Your task to perform on an android device: install app "The Home Depot" Image 0: 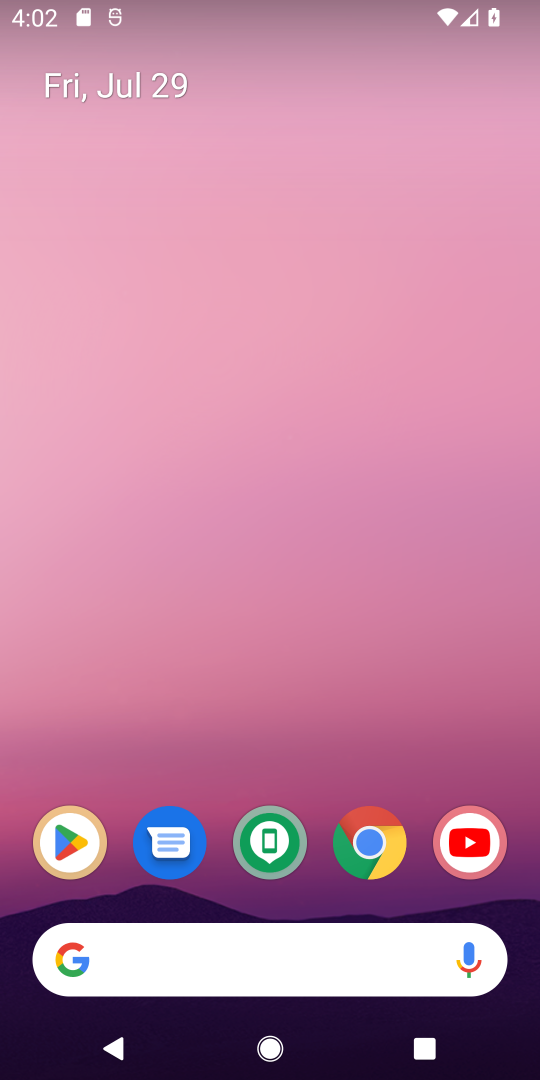
Step 0: drag from (314, 606) to (339, 0)
Your task to perform on an android device: install app "The Home Depot" Image 1: 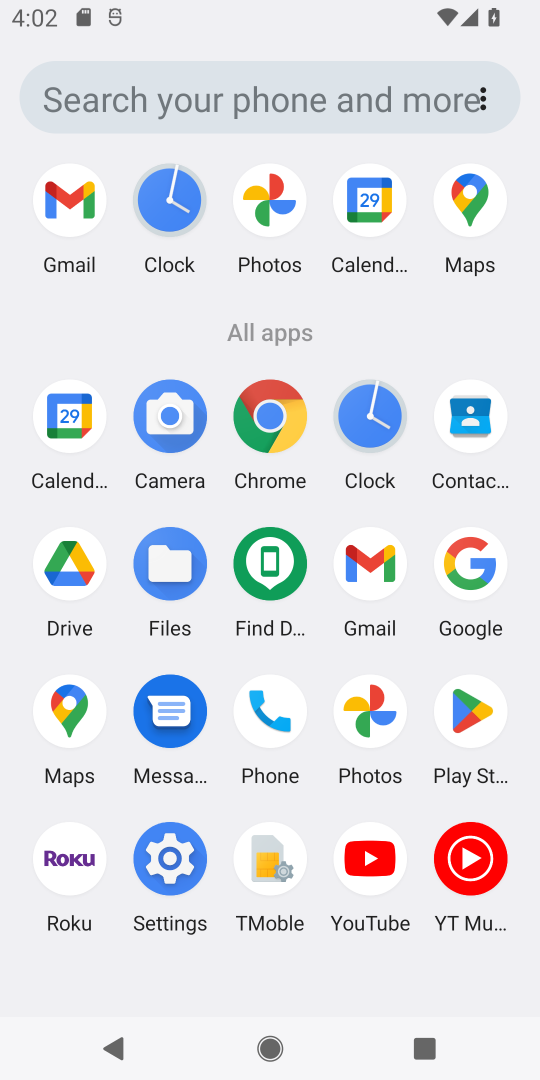
Step 1: click (464, 715)
Your task to perform on an android device: install app "The Home Depot" Image 2: 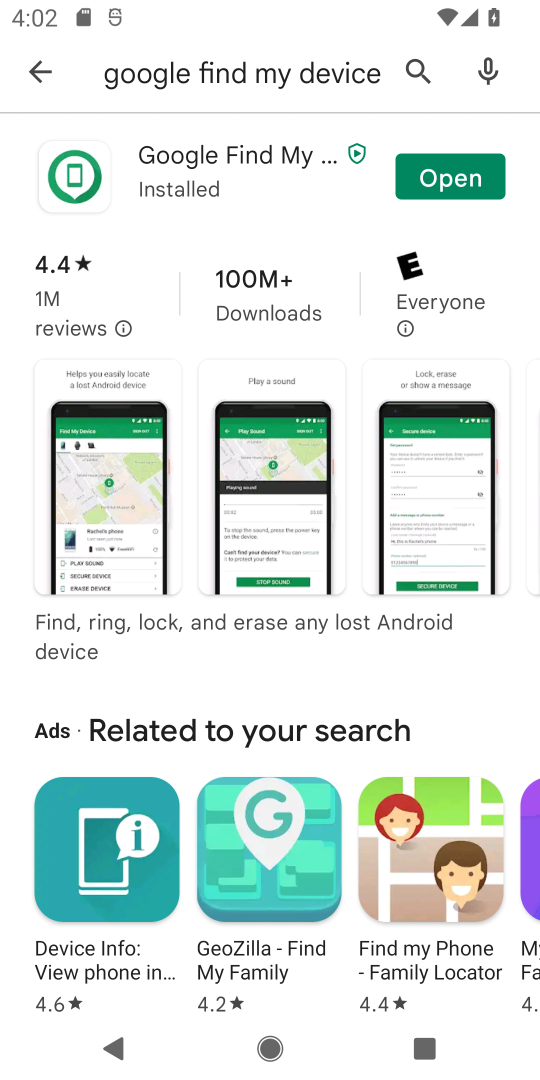
Step 2: click (412, 57)
Your task to perform on an android device: install app "The Home Depot" Image 3: 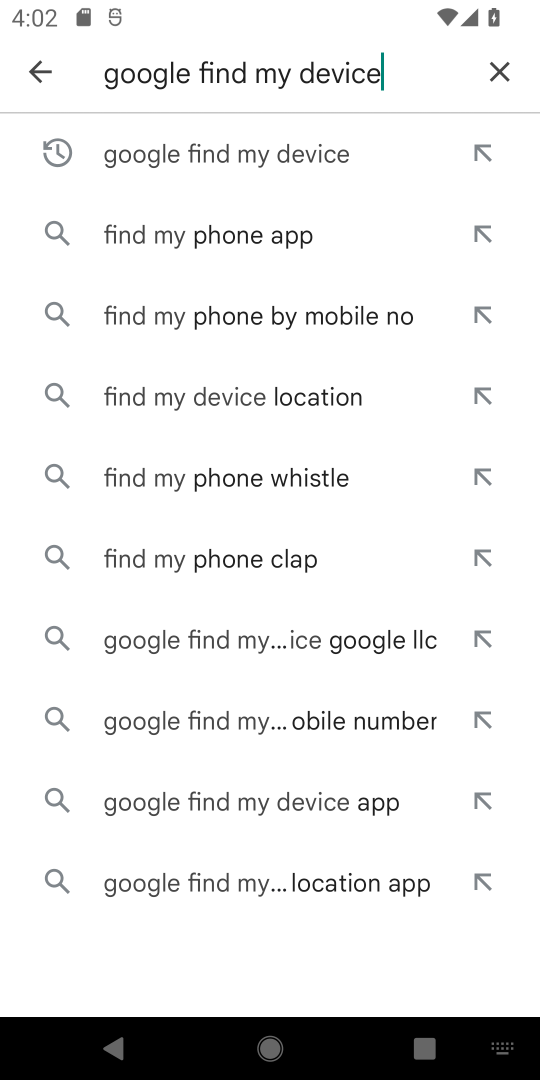
Step 3: click (496, 75)
Your task to perform on an android device: install app "The Home Depot" Image 4: 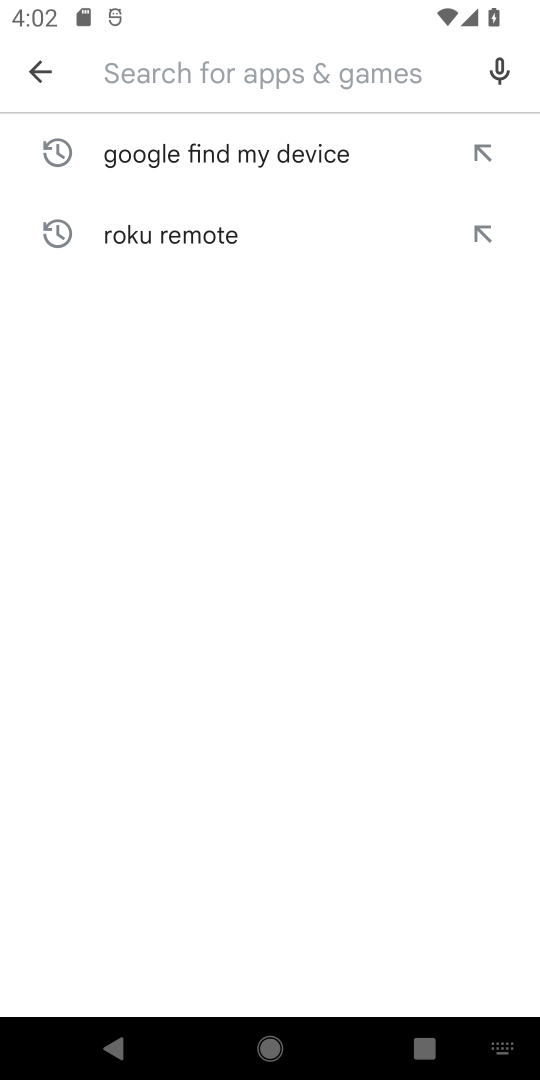
Step 4: type "the home depot"
Your task to perform on an android device: install app "The Home Depot" Image 5: 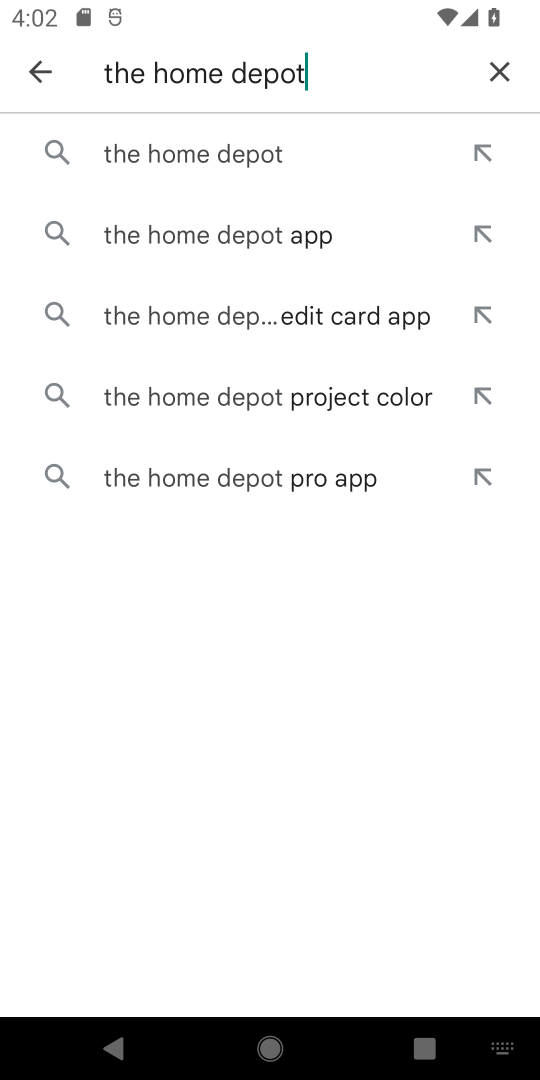
Step 5: click (244, 159)
Your task to perform on an android device: install app "The Home Depot" Image 6: 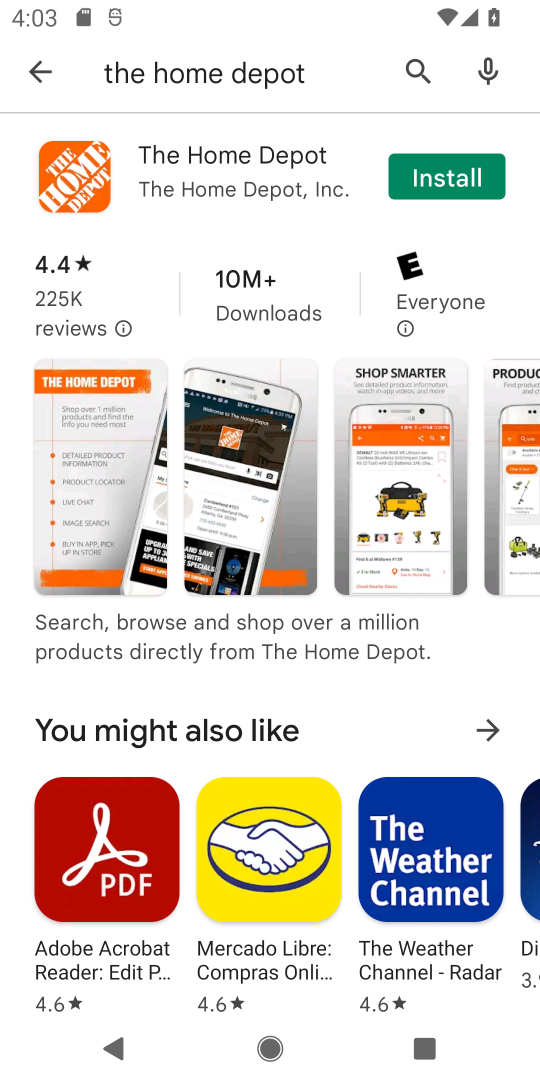
Step 6: click (491, 178)
Your task to perform on an android device: install app "The Home Depot" Image 7: 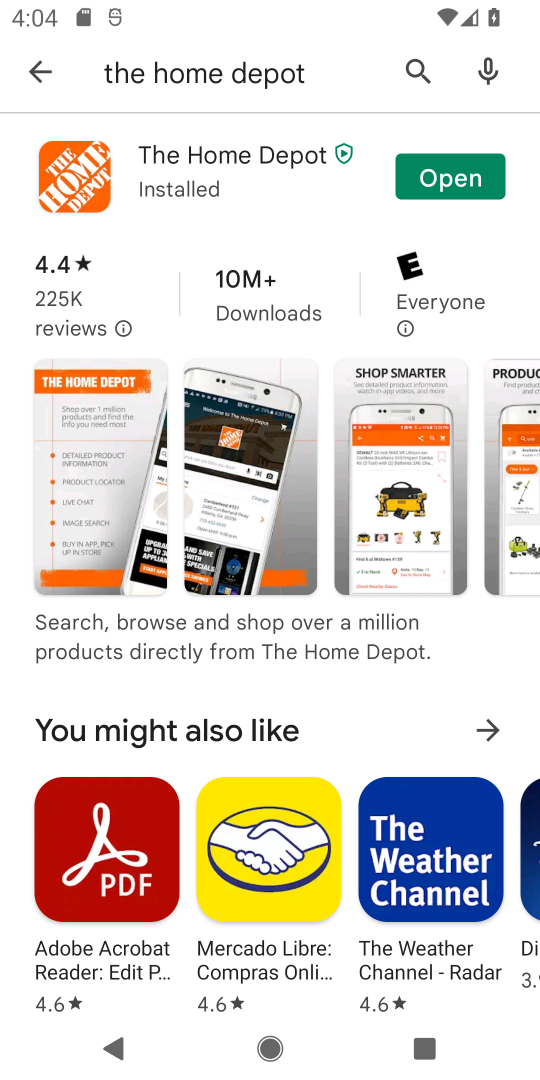
Step 7: click (449, 185)
Your task to perform on an android device: install app "The Home Depot" Image 8: 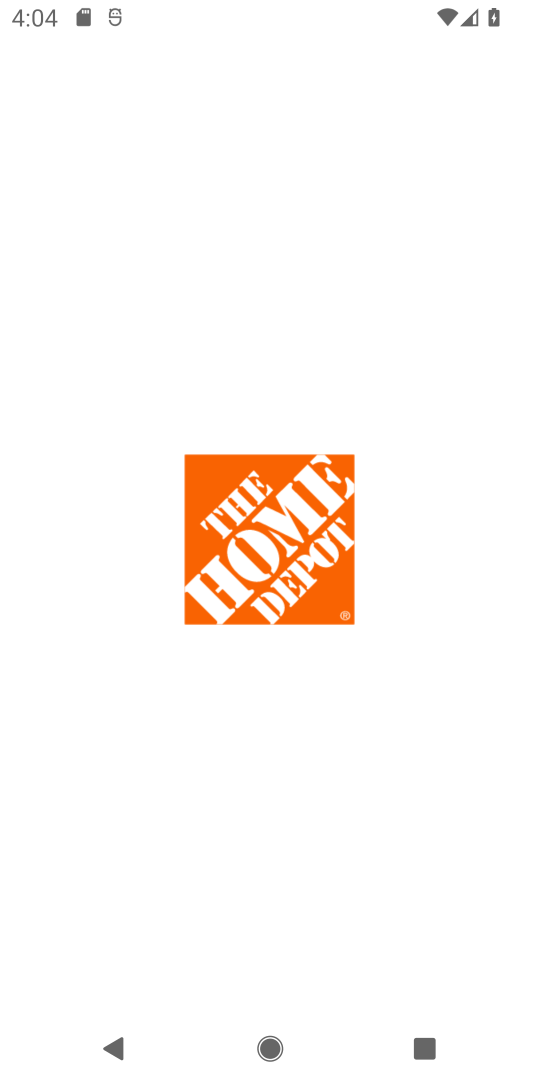
Step 8: task complete